Your task to perform on an android device: Check the news Image 0: 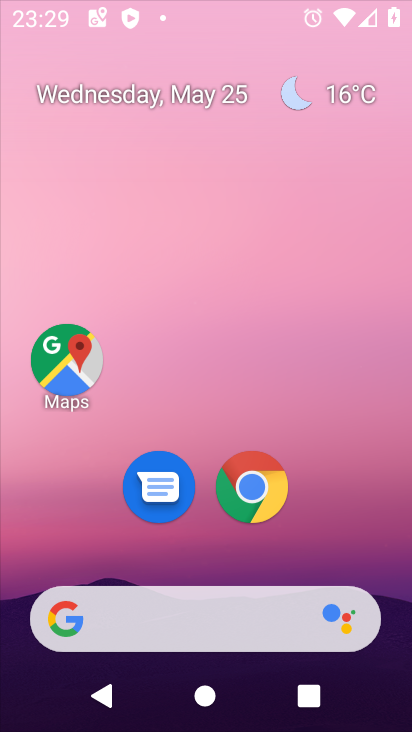
Step 0: drag from (155, 476) to (229, 42)
Your task to perform on an android device: Check the news Image 1: 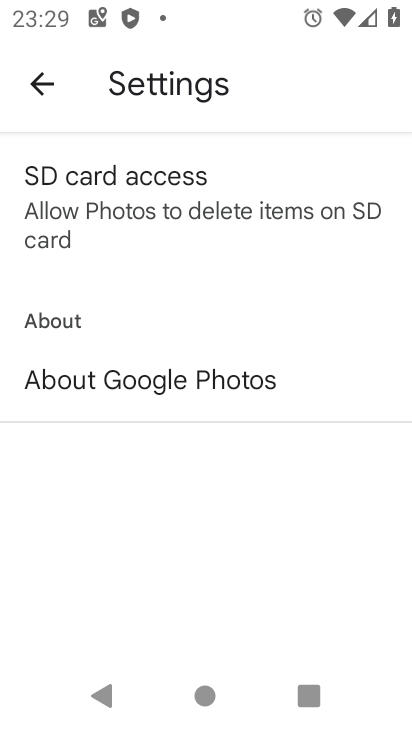
Step 1: press home button
Your task to perform on an android device: Check the news Image 2: 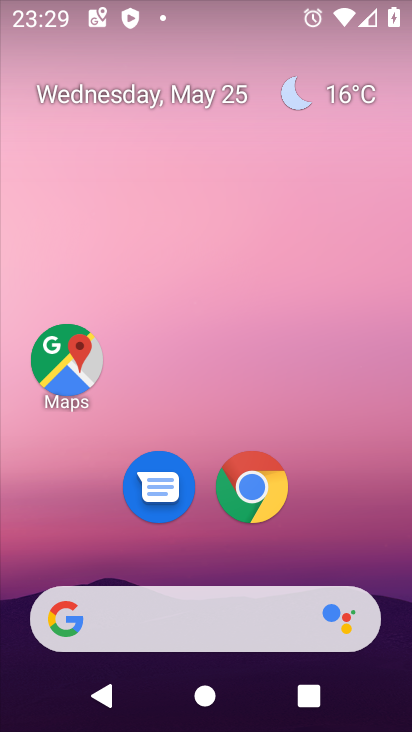
Step 2: drag from (140, 700) to (188, 11)
Your task to perform on an android device: Check the news Image 3: 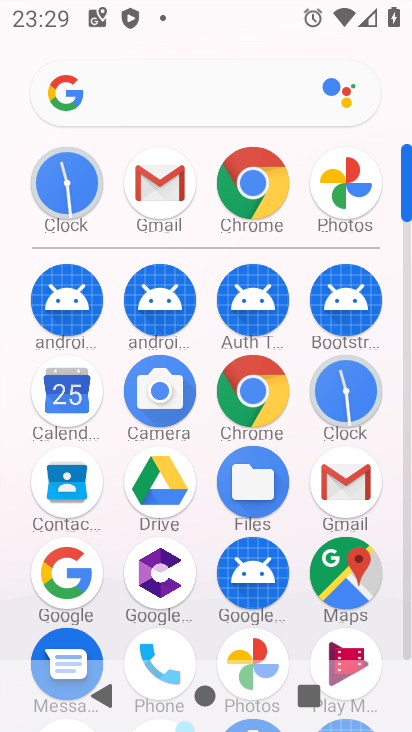
Step 3: click (125, 106)
Your task to perform on an android device: Check the news Image 4: 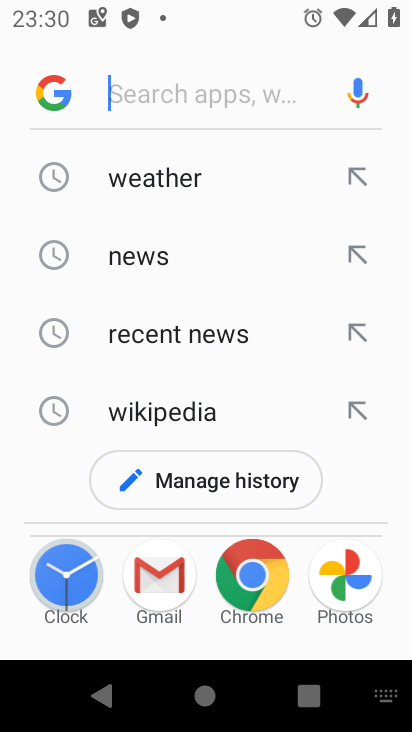
Step 4: click (204, 258)
Your task to perform on an android device: Check the news Image 5: 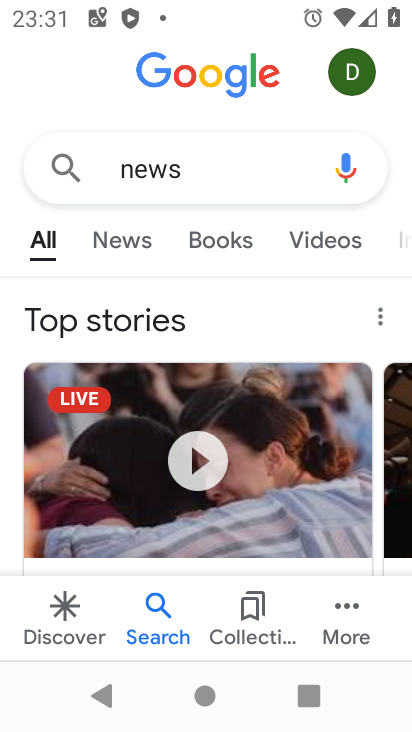
Step 5: task complete